Your task to perform on an android device: Open Google Maps and go to "Timeline" Image 0: 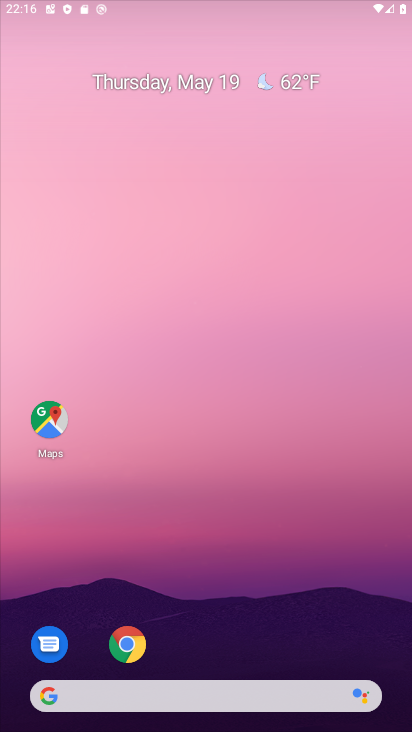
Step 0: drag from (264, 591) to (205, 212)
Your task to perform on an android device: Open Google Maps and go to "Timeline" Image 1: 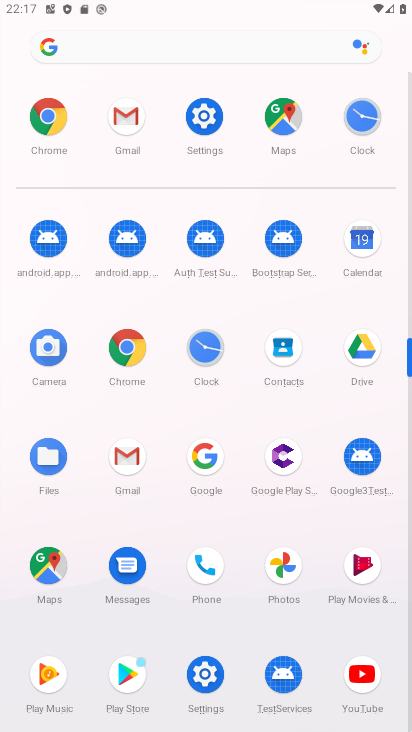
Step 1: click (57, 573)
Your task to perform on an android device: Open Google Maps and go to "Timeline" Image 2: 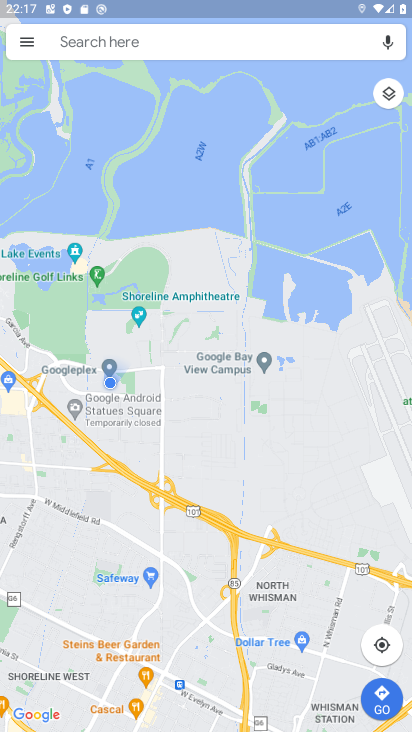
Step 2: click (23, 37)
Your task to perform on an android device: Open Google Maps and go to "Timeline" Image 3: 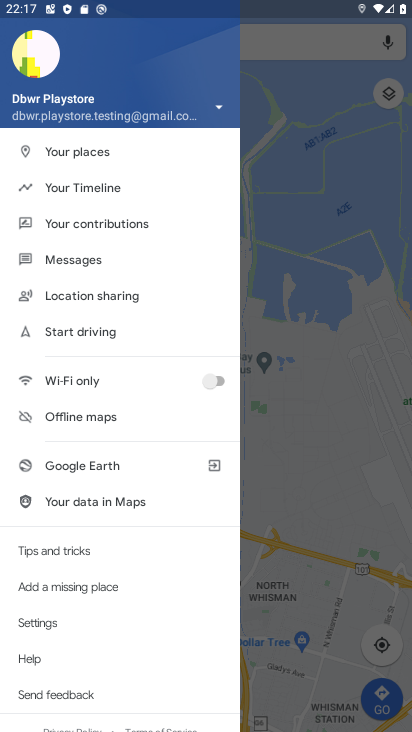
Step 3: click (110, 188)
Your task to perform on an android device: Open Google Maps and go to "Timeline" Image 4: 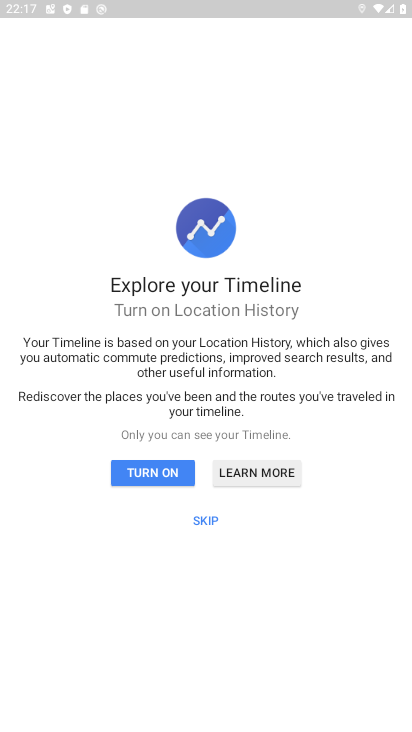
Step 4: click (171, 473)
Your task to perform on an android device: Open Google Maps and go to "Timeline" Image 5: 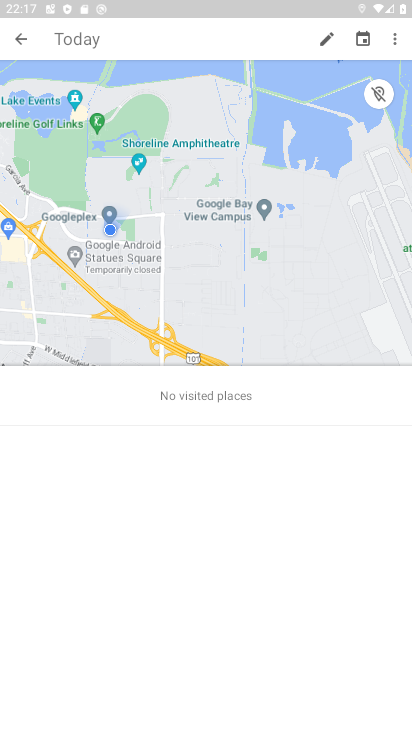
Step 5: task complete